Your task to perform on an android device: turn on translation in the chrome app Image 0: 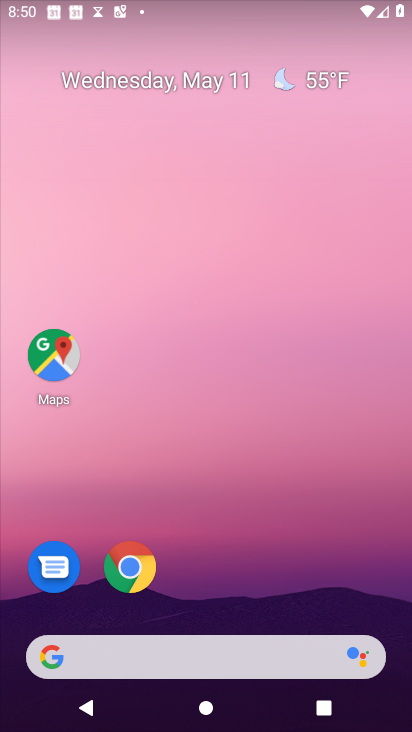
Step 0: click (145, 572)
Your task to perform on an android device: turn on translation in the chrome app Image 1: 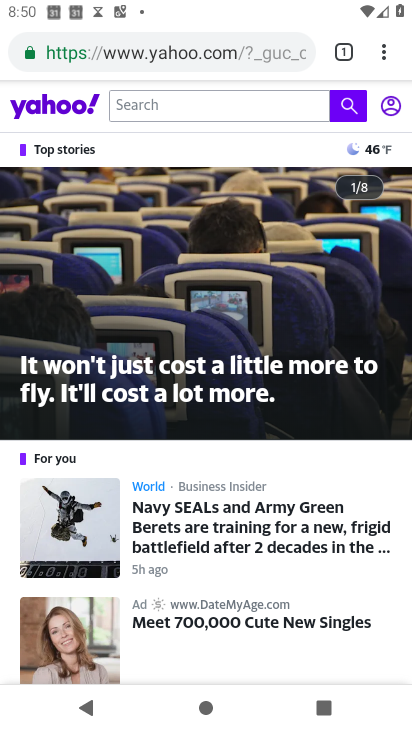
Step 1: click (387, 62)
Your task to perform on an android device: turn on translation in the chrome app Image 2: 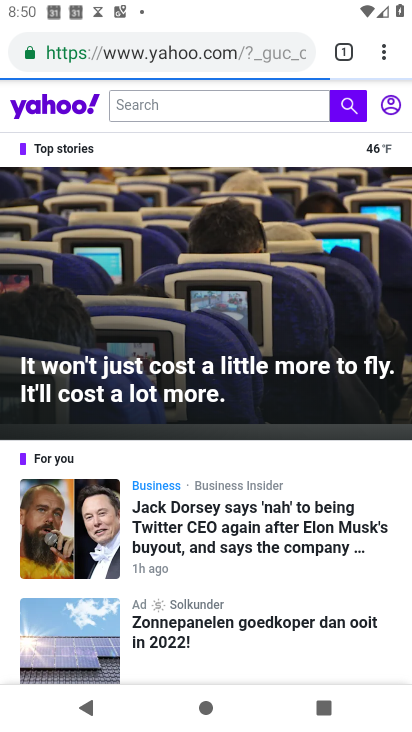
Step 2: click (381, 63)
Your task to perform on an android device: turn on translation in the chrome app Image 3: 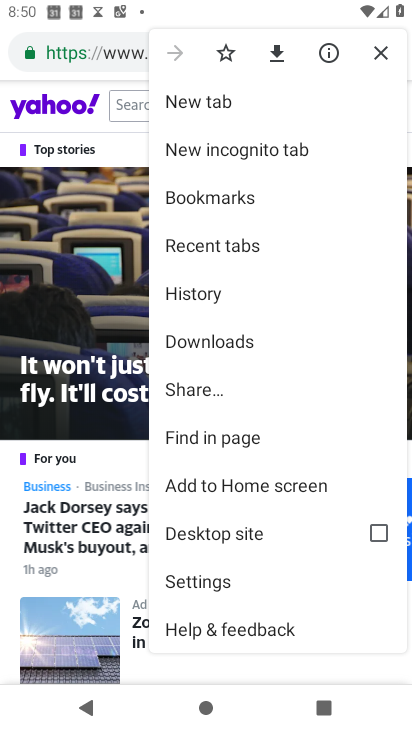
Step 3: click (206, 582)
Your task to perform on an android device: turn on translation in the chrome app Image 4: 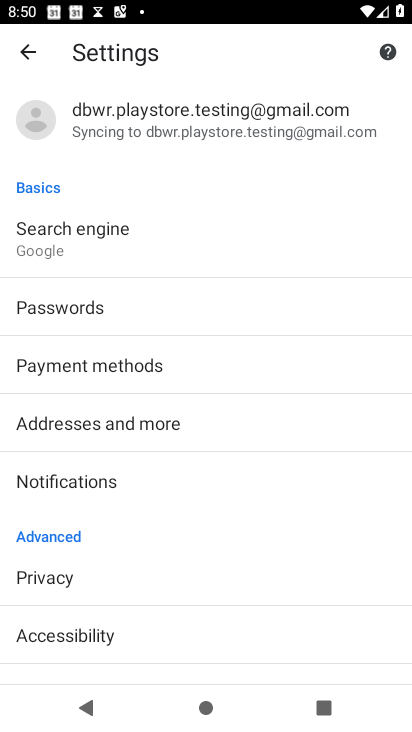
Step 4: drag from (132, 583) to (201, 217)
Your task to perform on an android device: turn on translation in the chrome app Image 5: 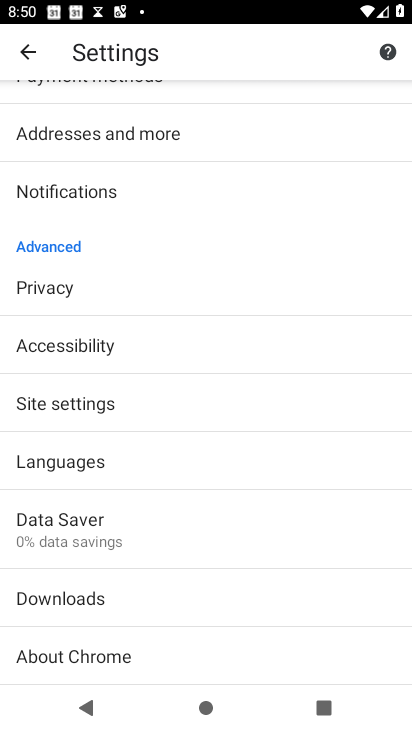
Step 5: click (86, 464)
Your task to perform on an android device: turn on translation in the chrome app Image 6: 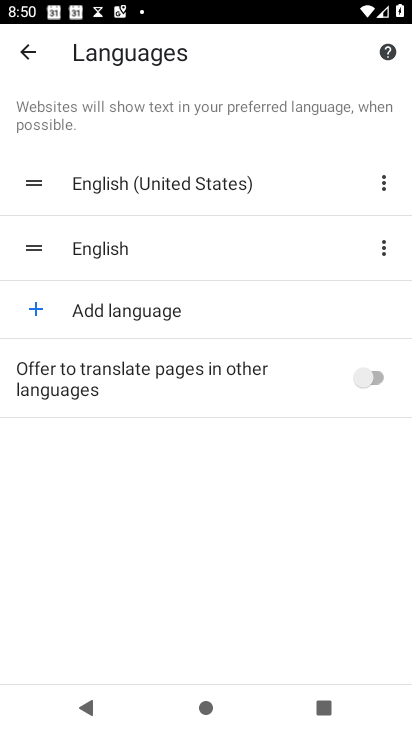
Step 6: click (382, 377)
Your task to perform on an android device: turn on translation in the chrome app Image 7: 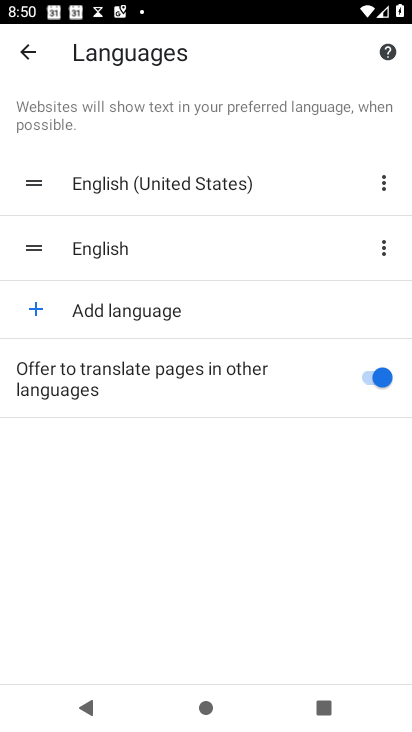
Step 7: task complete